Your task to perform on an android device: Go to Yahoo.com Image 0: 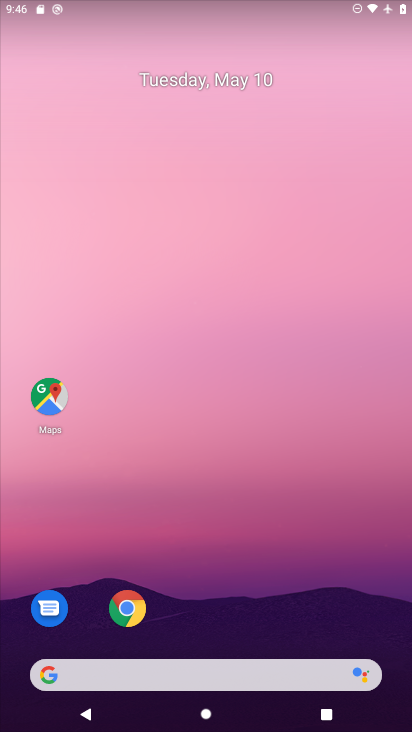
Step 0: drag from (243, 575) to (252, 273)
Your task to perform on an android device: Go to Yahoo.com Image 1: 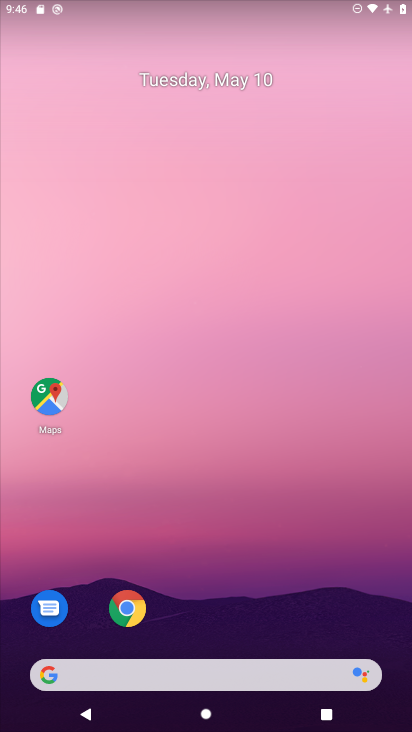
Step 1: drag from (267, 465) to (278, 271)
Your task to perform on an android device: Go to Yahoo.com Image 2: 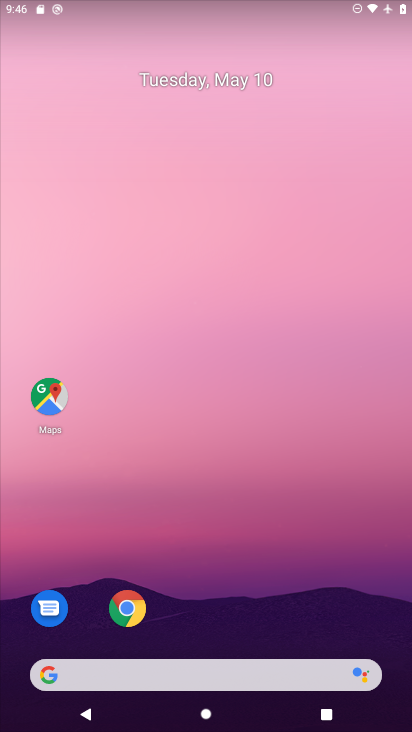
Step 2: drag from (228, 604) to (232, 290)
Your task to perform on an android device: Go to Yahoo.com Image 3: 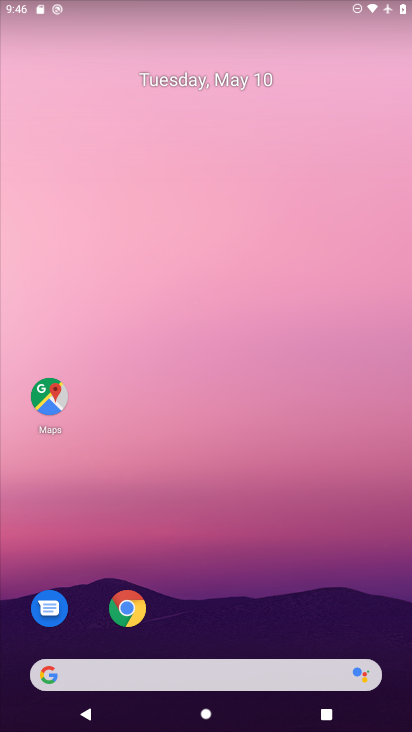
Step 3: drag from (220, 605) to (243, 220)
Your task to perform on an android device: Go to Yahoo.com Image 4: 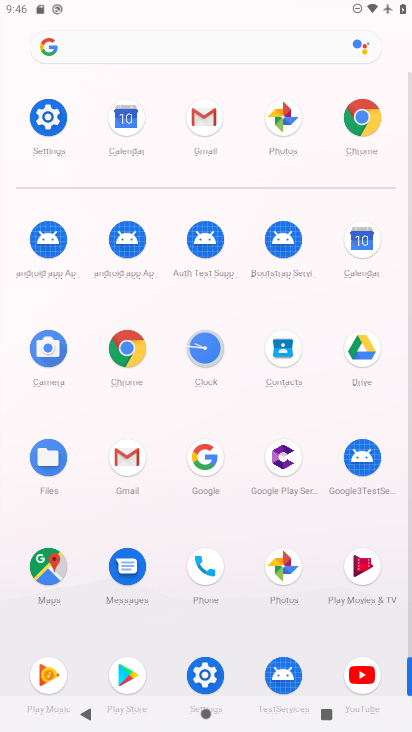
Step 4: click (133, 350)
Your task to perform on an android device: Go to Yahoo.com Image 5: 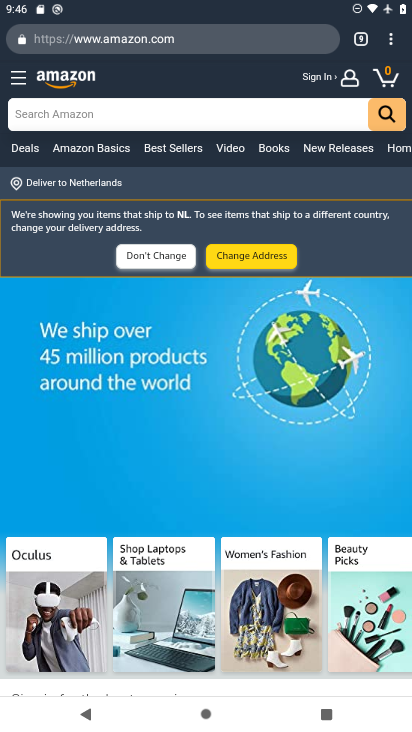
Step 5: click (379, 41)
Your task to perform on an android device: Go to Yahoo.com Image 6: 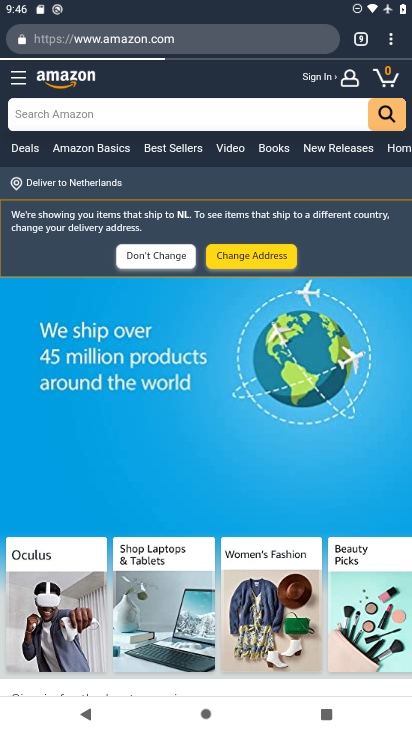
Step 6: click (378, 42)
Your task to perform on an android device: Go to Yahoo.com Image 7: 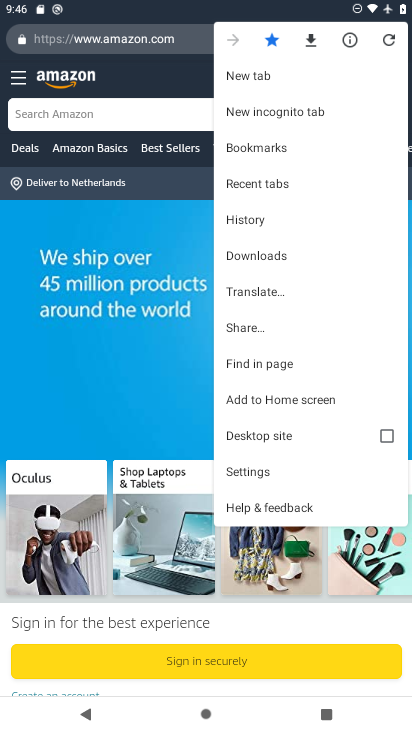
Step 7: click (261, 73)
Your task to perform on an android device: Go to Yahoo.com Image 8: 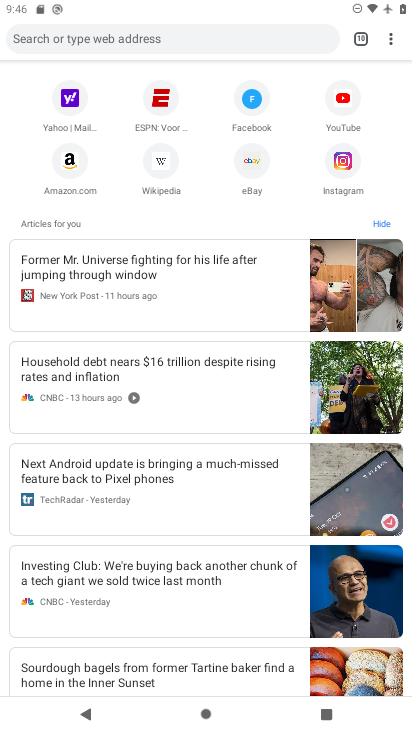
Step 8: click (71, 93)
Your task to perform on an android device: Go to Yahoo.com Image 9: 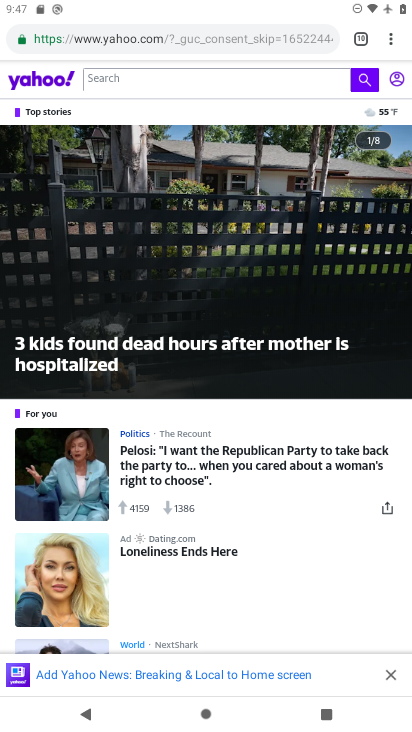
Step 9: task complete